Your task to perform on an android device: choose inbox layout in the gmail app Image 0: 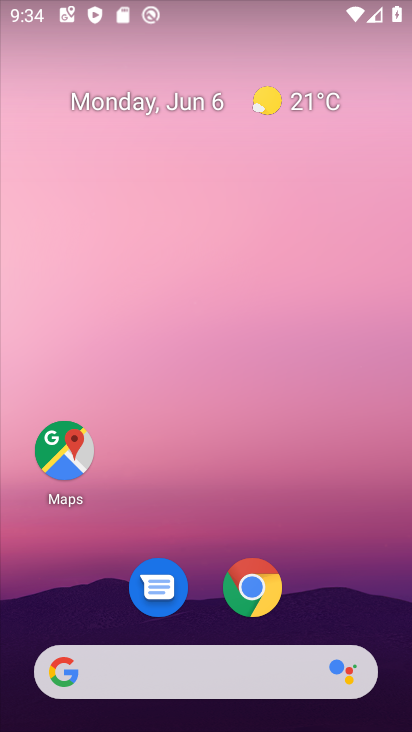
Step 0: drag from (180, 21) to (236, 20)
Your task to perform on an android device: choose inbox layout in the gmail app Image 1: 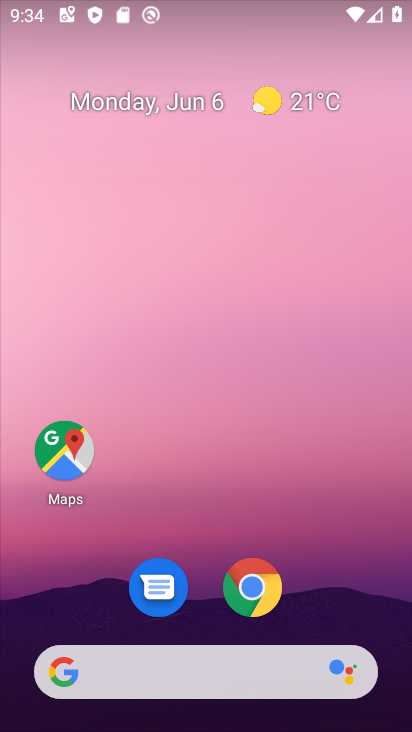
Step 1: drag from (160, 714) to (300, 32)
Your task to perform on an android device: choose inbox layout in the gmail app Image 2: 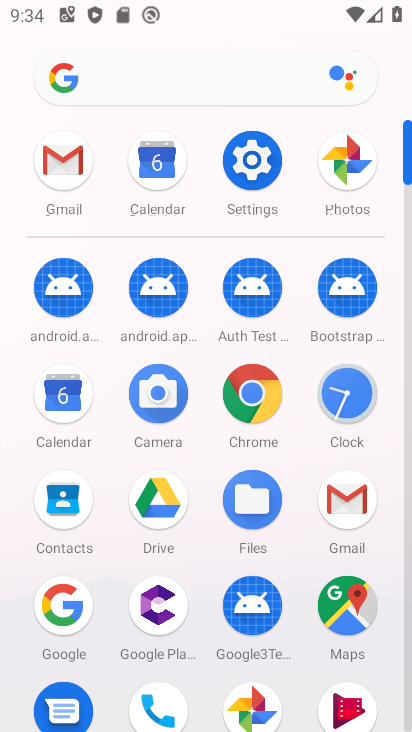
Step 2: click (70, 174)
Your task to perform on an android device: choose inbox layout in the gmail app Image 3: 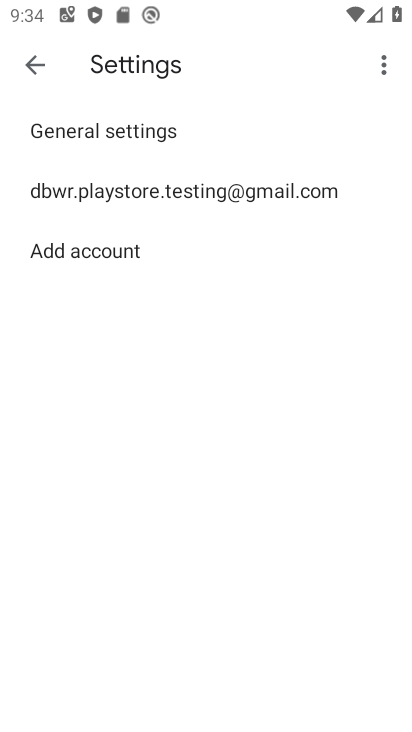
Step 3: click (248, 184)
Your task to perform on an android device: choose inbox layout in the gmail app Image 4: 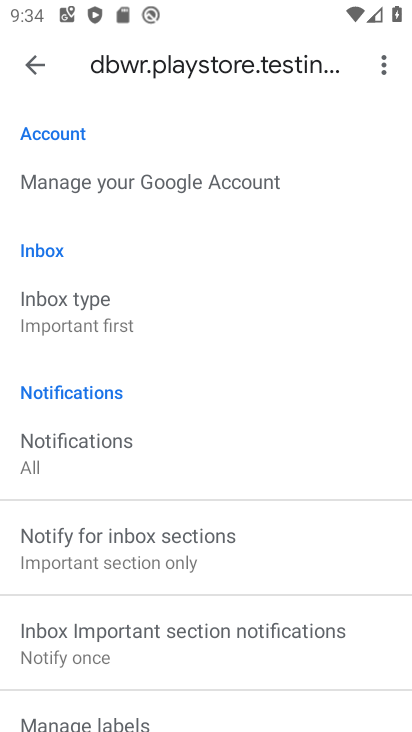
Step 4: click (126, 303)
Your task to perform on an android device: choose inbox layout in the gmail app Image 5: 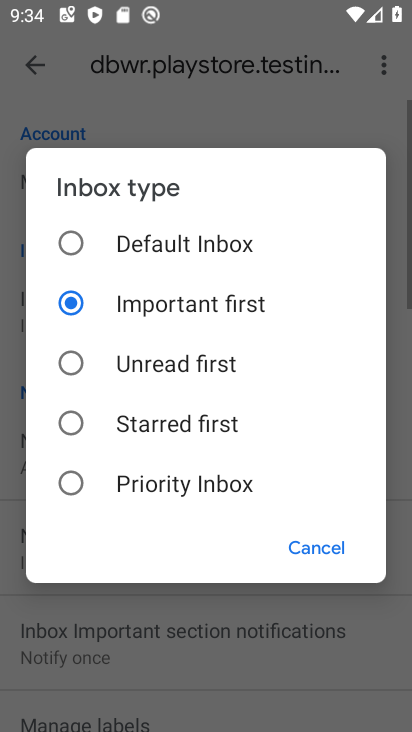
Step 5: click (184, 234)
Your task to perform on an android device: choose inbox layout in the gmail app Image 6: 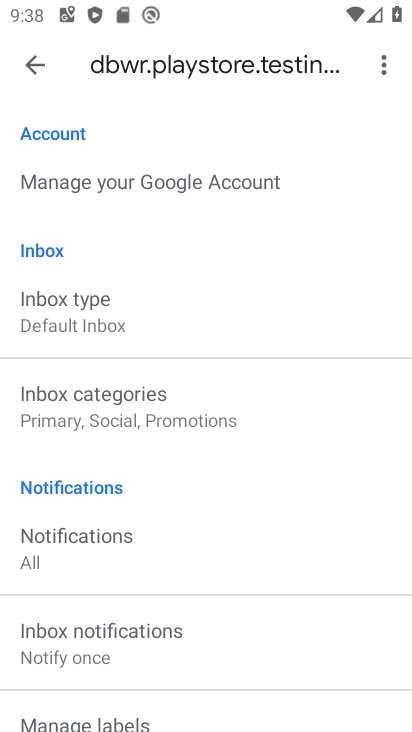
Step 6: task complete